Your task to perform on an android device: make emails show in primary in the gmail app Image 0: 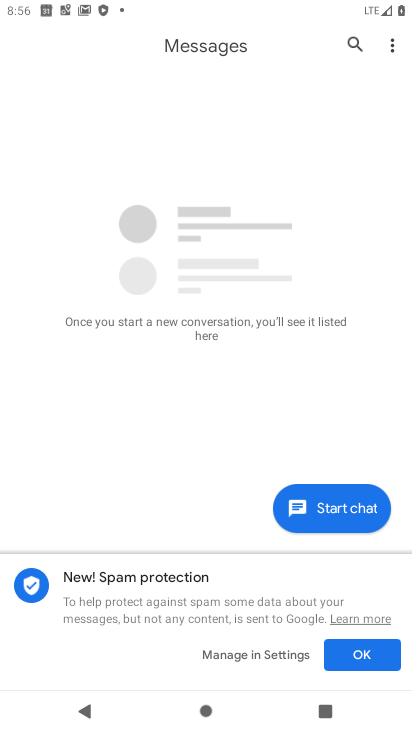
Step 0: press home button
Your task to perform on an android device: make emails show in primary in the gmail app Image 1: 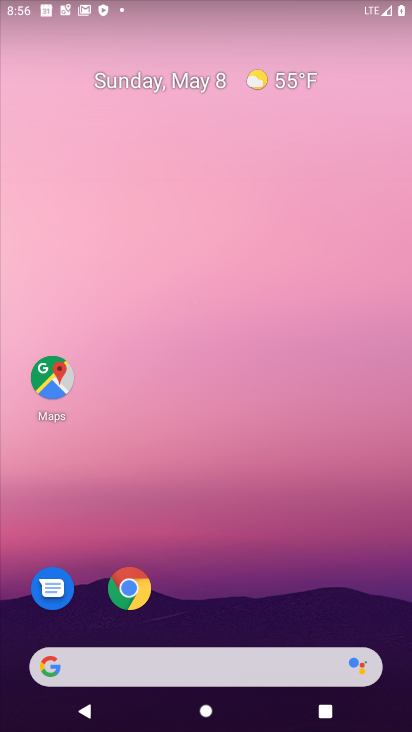
Step 1: drag from (363, 610) to (209, 58)
Your task to perform on an android device: make emails show in primary in the gmail app Image 2: 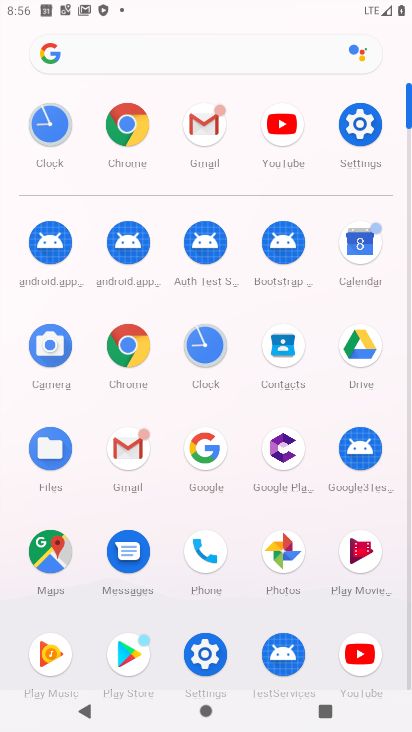
Step 2: click (126, 450)
Your task to perform on an android device: make emails show in primary in the gmail app Image 3: 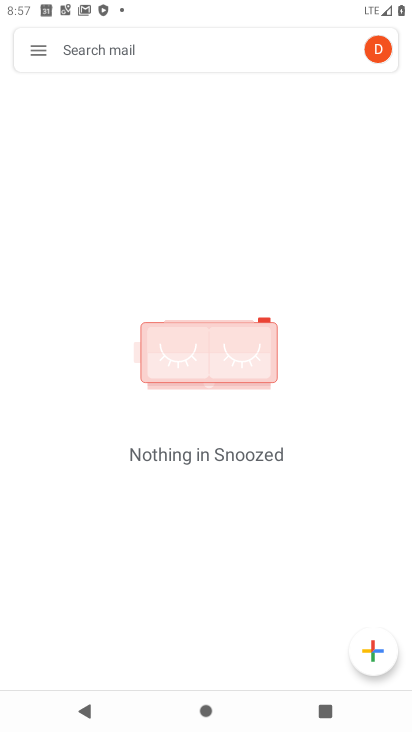
Step 3: task complete